Your task to perform on an android device: turn notification dots on Image 0: 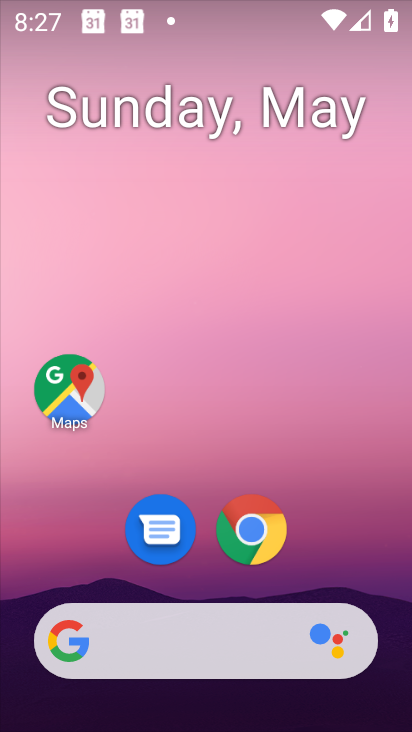
Step 0: drag from (371, 551) to (243, 272)
Your task to perform on an android device: turn notification dots on Image 1: 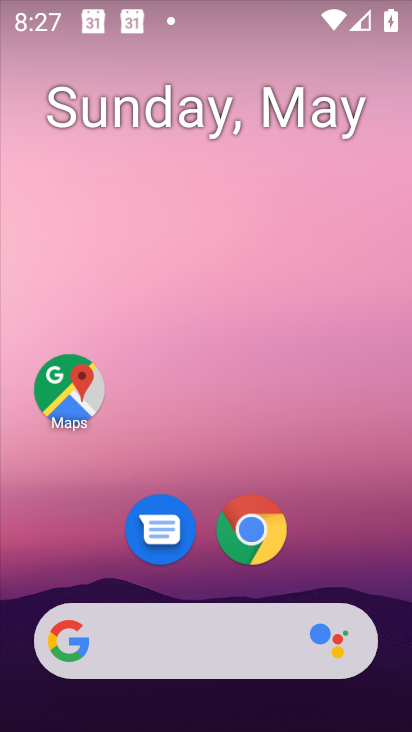
Step 1: drag from (377, 586) to (321, 198)
Your task to perform on an android device: turn notification dots on Image 2: 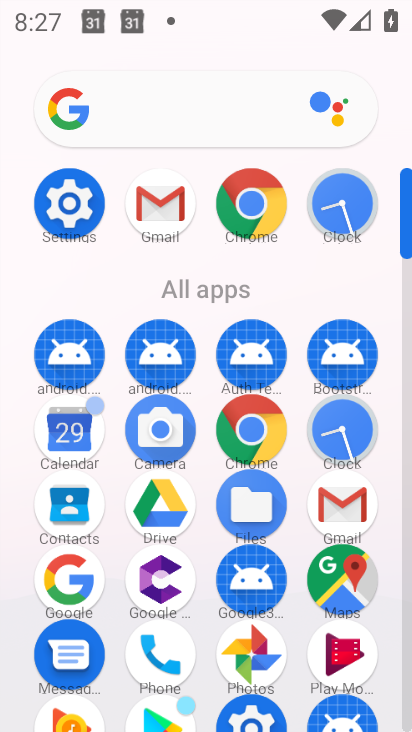
Step 2: click (61, 202)
Your task to perform on an android device: turn notification dots on Image 3: 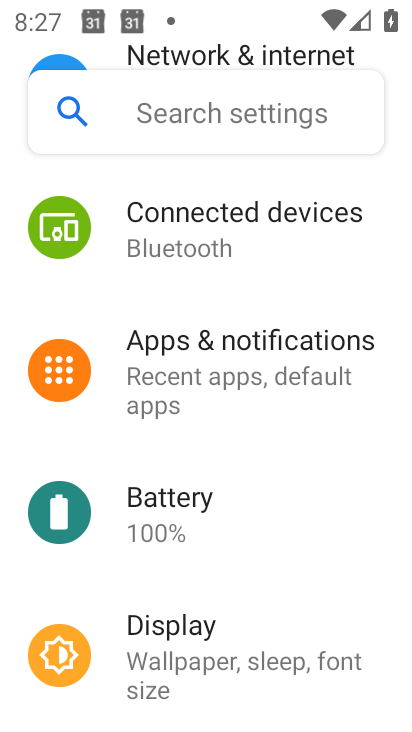
Step 3: click (210, 53)
Your task to perform on an android device: turn notification dots on Image 4: 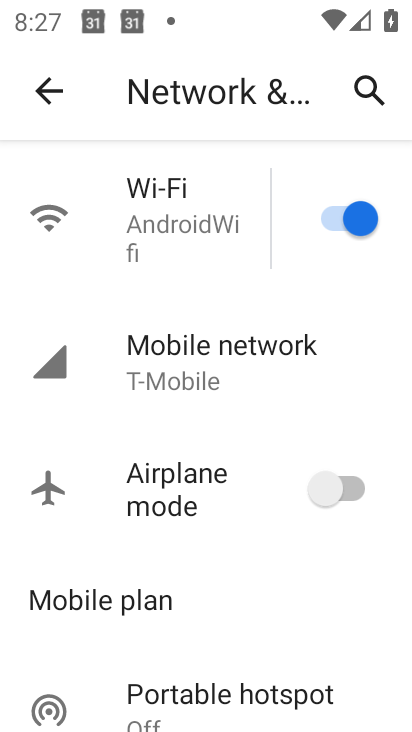
Step 4: task complete